Your task to perform on an android device: turn on the 12-hour format for clock Image 0: 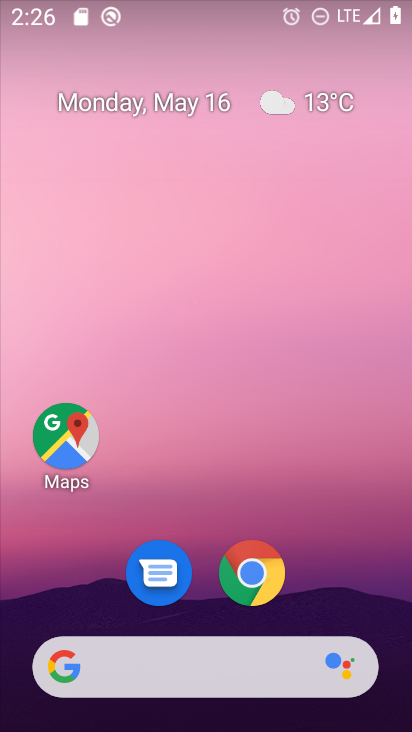
Step 0: drag from (178, 640) to (201, 170)
Your task to perform on an android device: turn on the 12-hour format for clock Image 1: 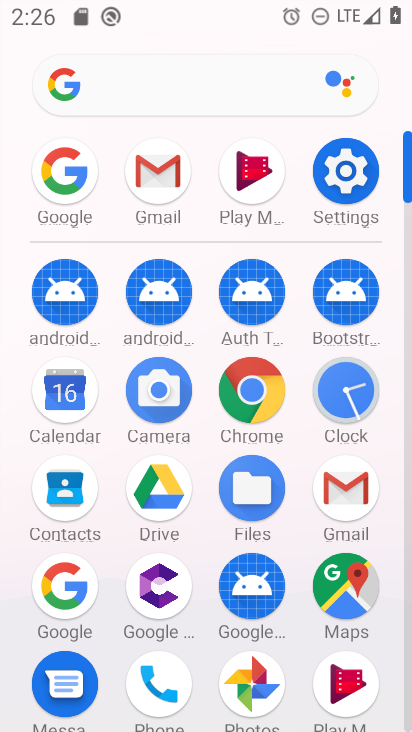
Step 1: click (357, 205)
Your task to perform on an android device: turn on the 12-hour format for clock Image 2: 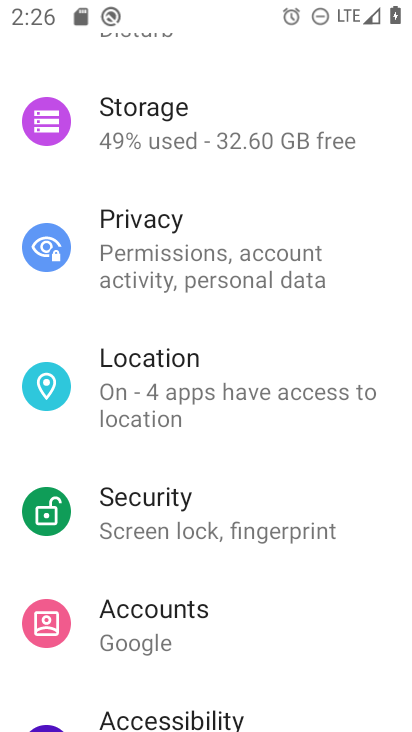
Step 2: drag from (175, 670) to (147, 0)
Your task to perform on an android device: turn on the 12-hour format for clock Image 3: 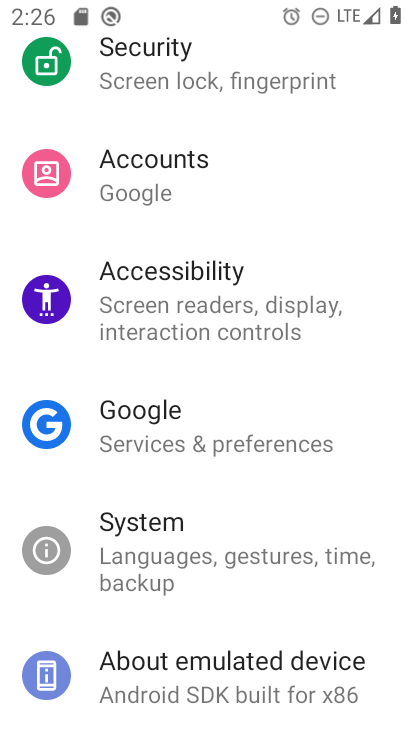
Step 3: click (220, 551)
Your task to perform on an android device: turn on the 12-hour format for clock Image 4: 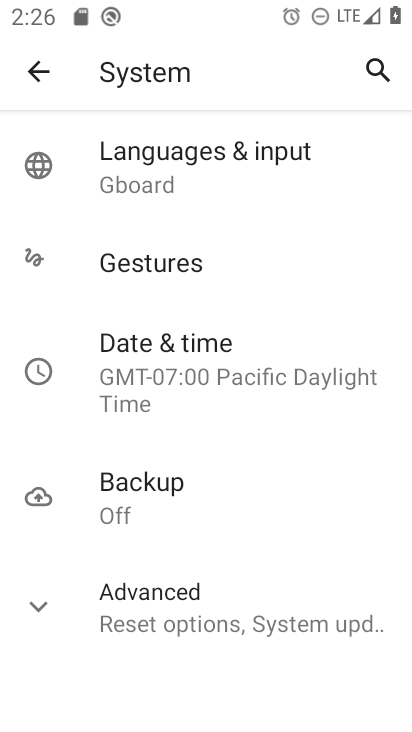
Step 4: click (197, 366)
Your task to perform on an android device: turn on the 12-hour format for clock Image 5: 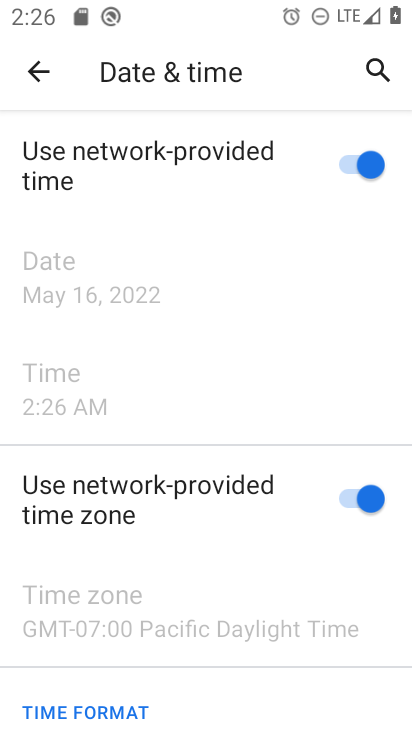
Step 5: task complete